Your task to perform on an android device: Open settings on Google Maps Image 0: 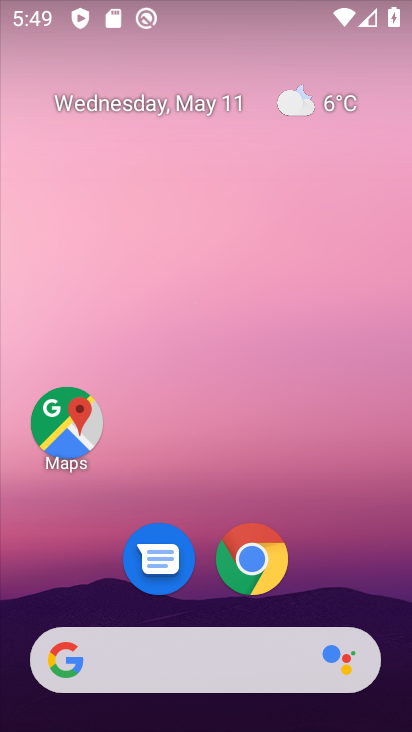
Step 0: drag from (323, 582) to (323, 39)
Your task to perform on an android device: Open settings on Google Maps Image 1: 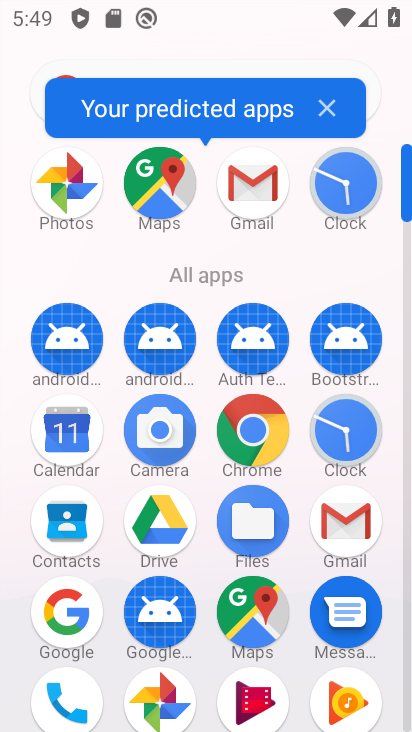
Step 1: click (151, 176)
Your task to perform on an android device: Open settings on Google Maps Image 2: 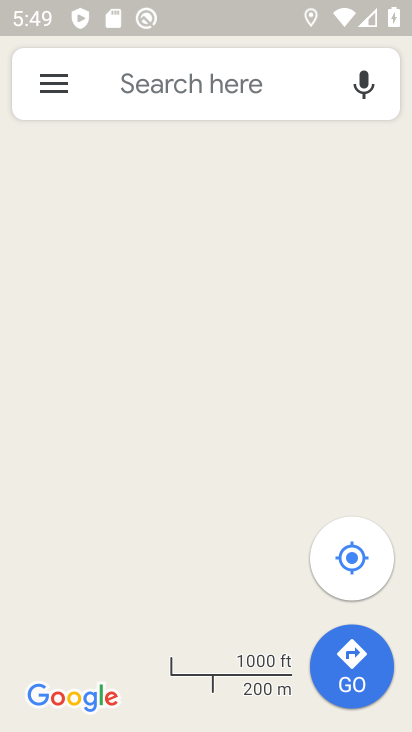
Step 2: click (38, 81)
Your task to perform on an android device: Open settings on Google Maps Image 3: 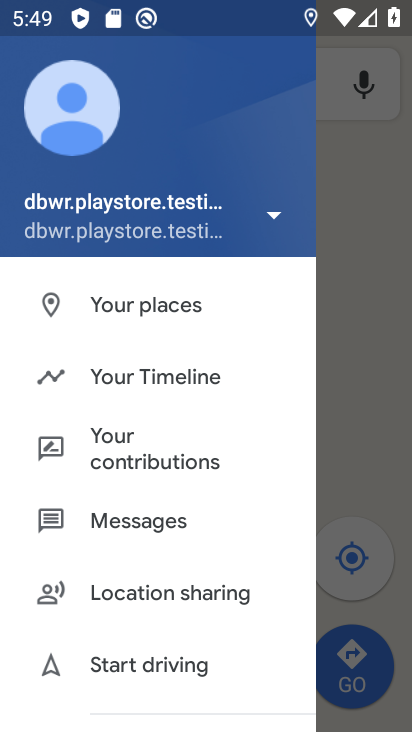
Step 3: drag from (215, 589) to (221, 225)
Your task to perform on an android device: Open settings on Google Maps Image 4: 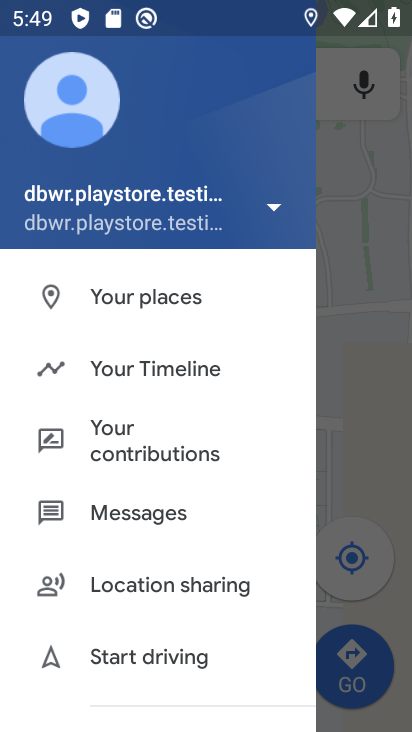
Step 4: drag from (222, 667) to (208, 169)
Your task to perform on an android device: Open settings on Google Maps Image 5: 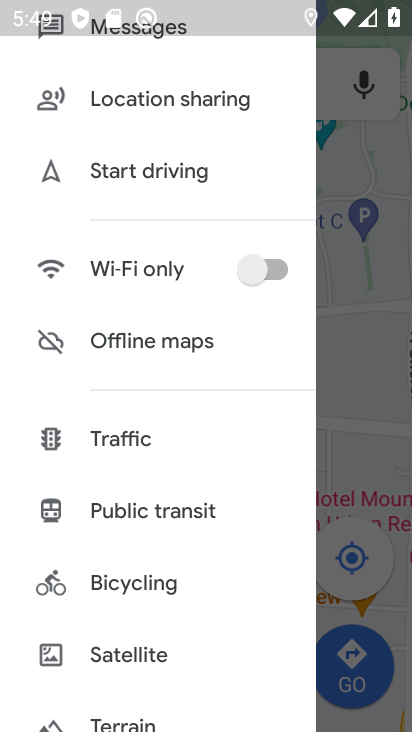
Step 5: drag from (202, 603) to (204, 134)
Your task to perform on an android device: Open settings on Google Maps Image 6: 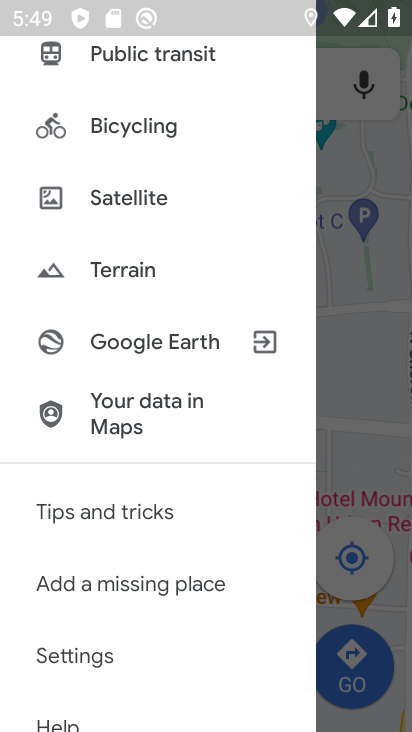
Step 6: drag from (86, 603) to (91, 516)
Your task to perform on an android device: Open settings on Google Maps Image 7: 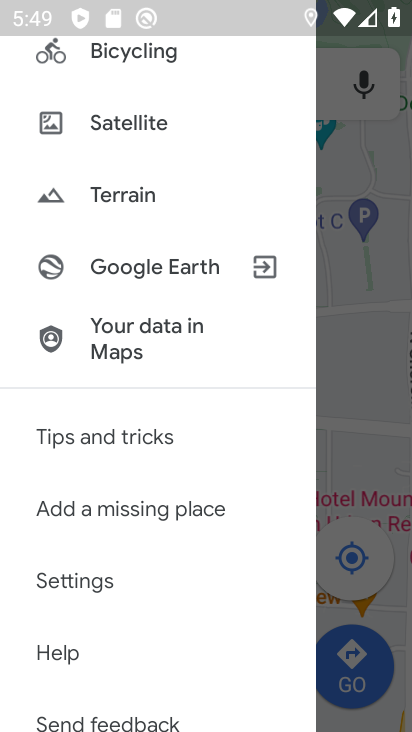
Step 7: click (96, 581)
Your task to perform on an android device: Open settings on Google Maps Image 8: 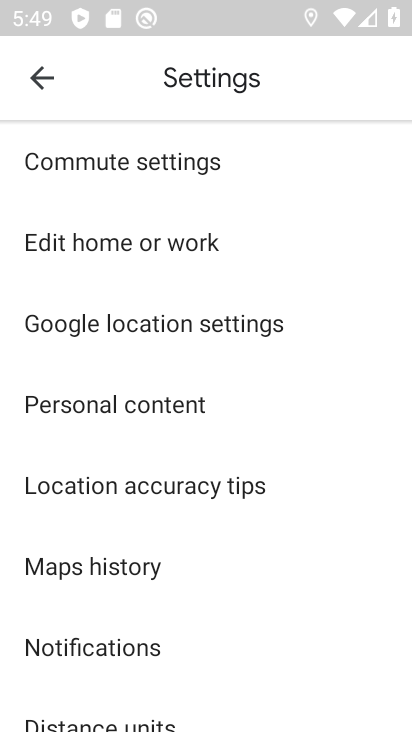
Step 8: task complete